Your task to perform on an android device: move an email to a new category in the gmail app Image 0: 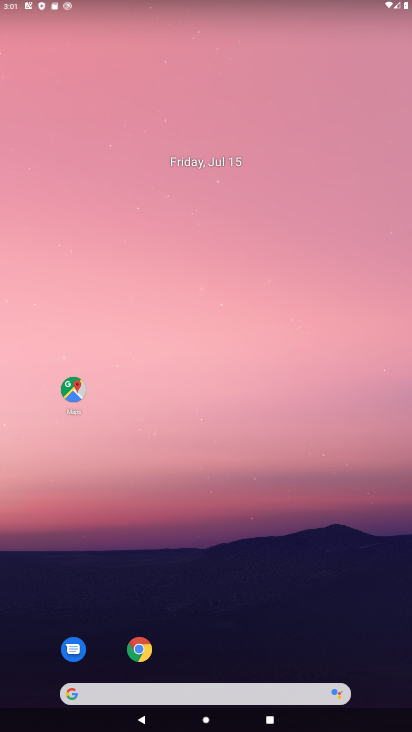
Step 0: drag from (368, 608) to (280, 117)
Your task to perform on an android device: move an email to a new category in the gmail app Image 1: 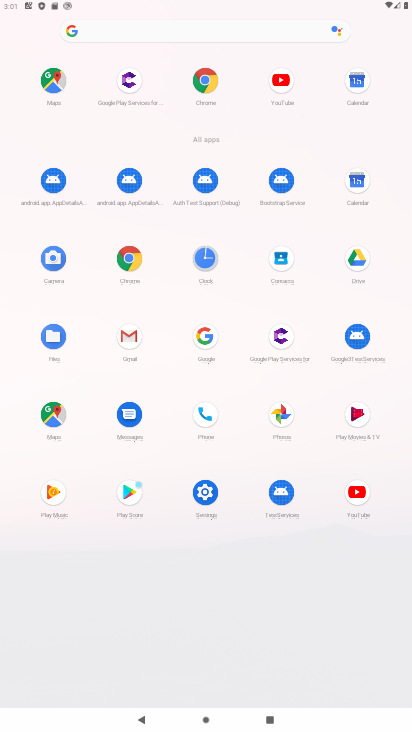
Step 1: click (133, 340)
Your task to perform on an android device: move an email to a new category in the gmail app Image 2: 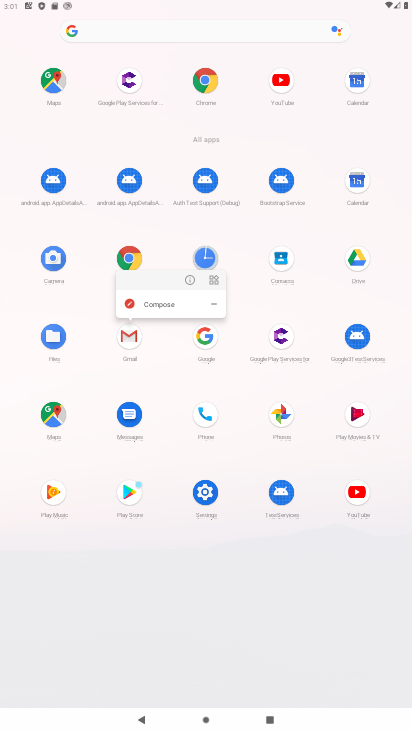
Step 2: click (128, 332)
Your task to perform on an android device: move an email to a new category in the gmail app Image 3: 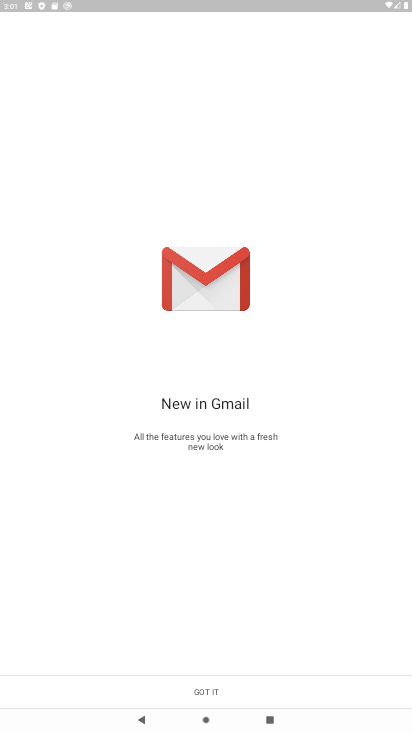
Step 3: click (217, 699)
Your task to perform on an android device: move an email to a new category in the gmail app Image 4: 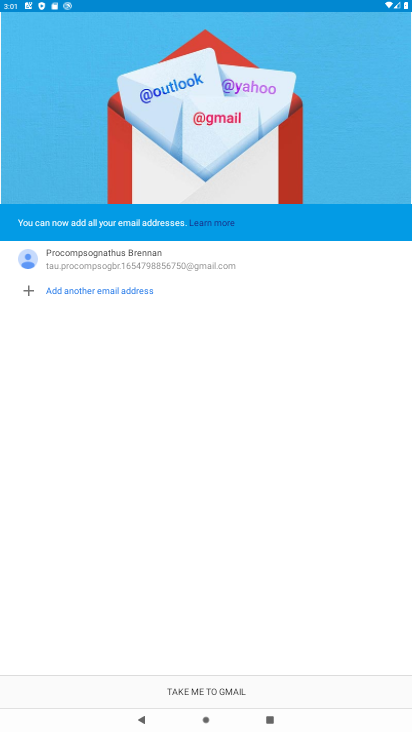
Step 4: click (217, 699)
Your task to perform on an android device: move an email to a new category in the gmail app Image 5: 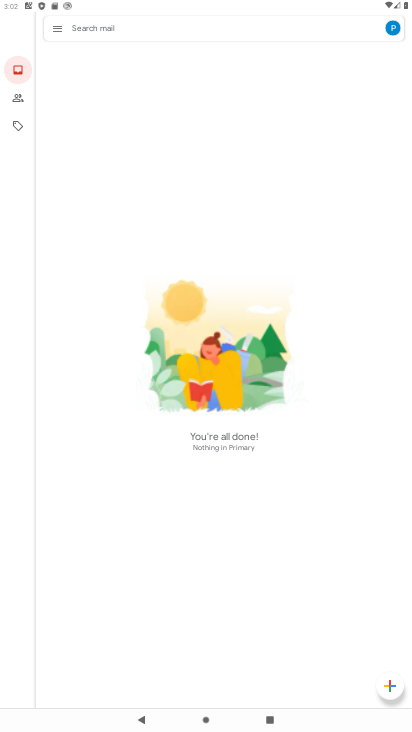
Step 5: click (57, 23)
Your task to perform on an android device: move an email to a new category in the gmail app Image 6: 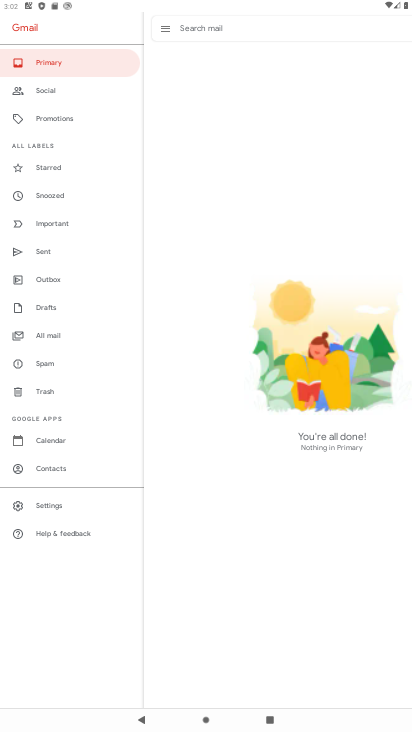
Step 6: click (47, 340)
Your task to perform on an android device: move an email to a new category in the gmail app Image 7: 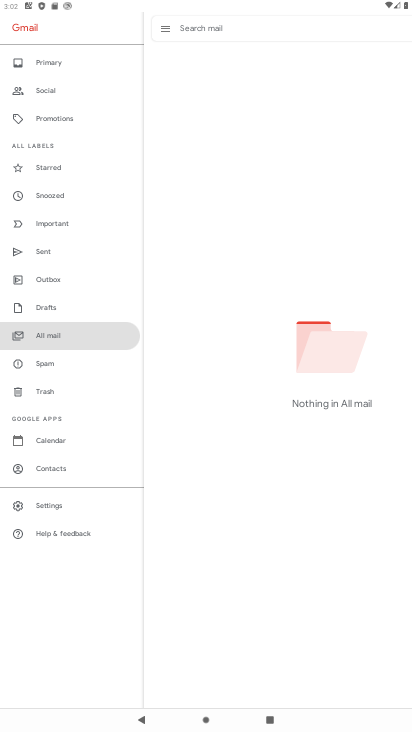
Step 7: task complete